Your task to perform on an android device: turn on the 24-hour format for clock Image 0: 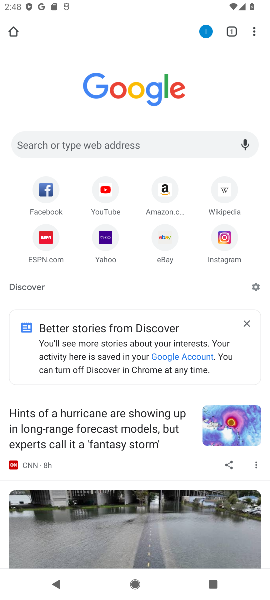
Step 0: press home button
Your task to perform on an android device: turn on the 24-hour format for clock Image 1: 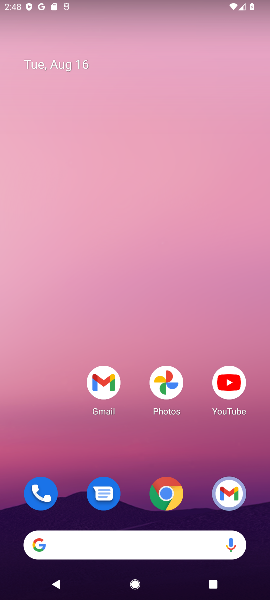
Step 1: drag from (56, 455) to (165, 85)
Your task to perform on an android device: turn on the 24-hour format for clock Image 2: 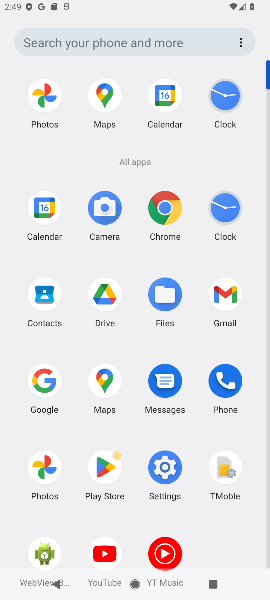
Step 2: click (226, 207)
Your task to perform on an android device: turn on the 24-hour format for clock Image 3: 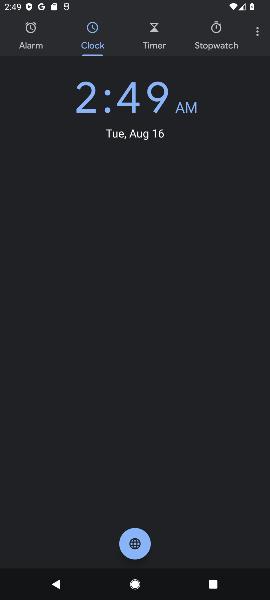
Step 3: click (257, 37)
Your task to perform on an android device: turn on the 24-hour format for clock Image 4: 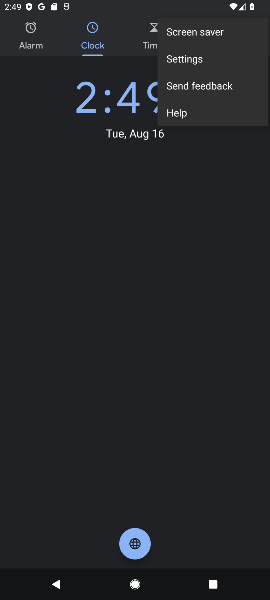
Step 4: click (199, 63)
Your task to perform on an android device: turn on the 24-hour format for clock Image 5: 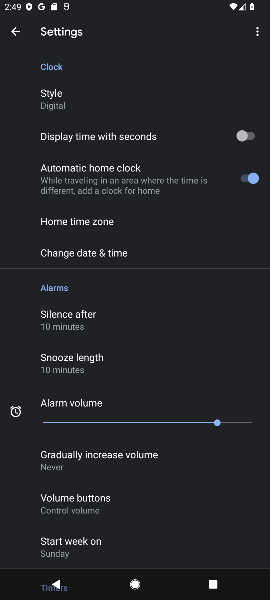
Step 5: drag from (210, 311) to (228, 249)
Your task to perform on an android device: turn on the 24-hour format for clock Image 6: 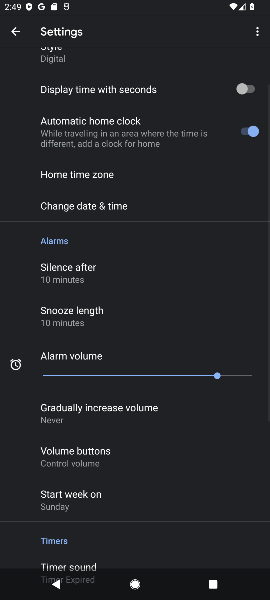
Step 6: drag from (191, 340) to (199, 200)
Your task to perform on an android device: turn on the 24-hour format for clock Image 7: 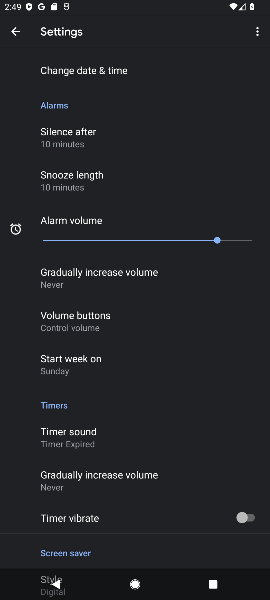
Step 7: drag from (180, 362) to (187, 273)
Your task to perform on an android device: turn on the 24-hour format for clock Image 8: 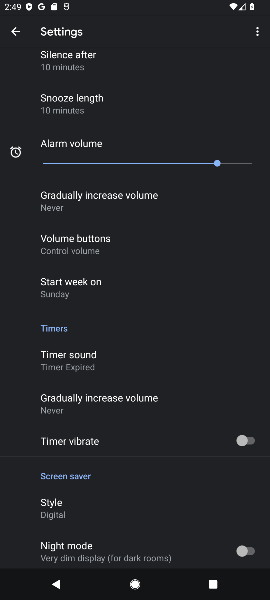
Step 8: drag from (186, 439) to (196, 325)
Your task to perform on an android device: turn on the 24-hour format for clock Image 9: 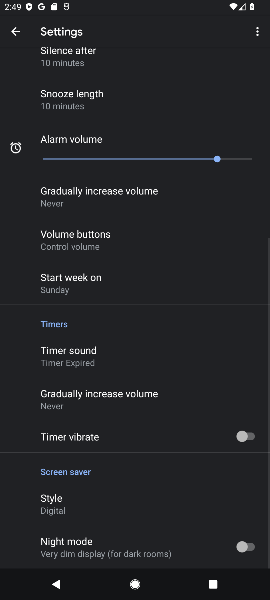
Step 9: drag from (187, 190) to (189, 287)
Your task to perform on an android device: turn on the 24-hour format for clock Image 10: 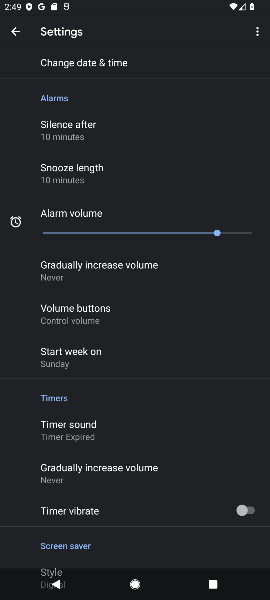
Step 10: drag from (173, 155) to (173, 248)
Your task to perform on an android device: turn on the 24-hour format for clock Image 11: 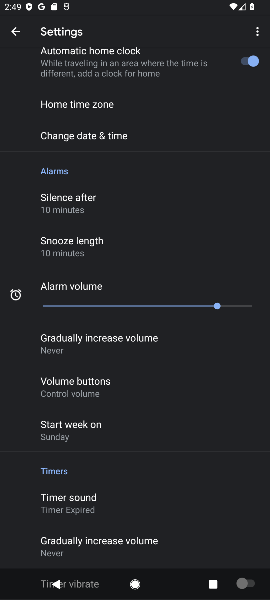
Step 11: drag from (188, 139) to (187, 266)
Your task to perform on an android device: turn on the 24-hour format for clock Image 12: 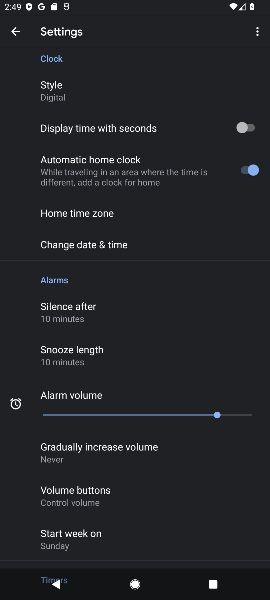
Step 12: drag from (178, 169) to (179, 272)
Your task to perform on an android device: turn on the 24-hour format for clock Image 13: 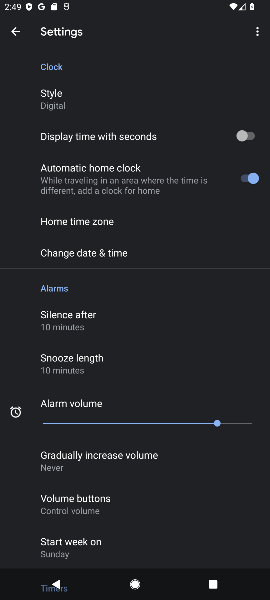
Step 13: click (133, 259)
Your task to perform on an android device: turn on the 24-hour format for clock Image 14: 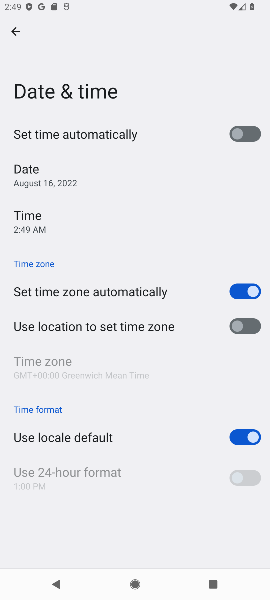
Step 14: click (250, 433)
Your task to perform on an android device: turn on the 24-hour format for clock Image 15: 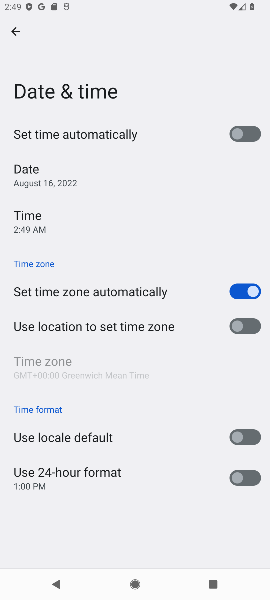
Step 15: click (230, 474)
Your task to perform on an android device: turn on the 24-hour format for clock Image 16: 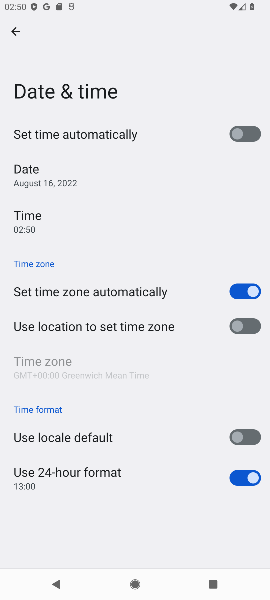
Step 16: task complete